Your task to perform on an android device: Open Google Maps and go to "Timeline" Image 0: 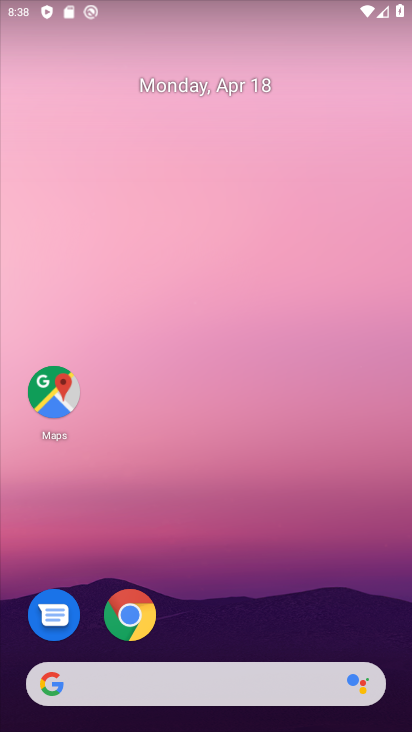
Step 0: drag from (361, 558) to (338, 173)
Your task to perform on an android device: Open Google Maps and go to "Timeline" Image 1: 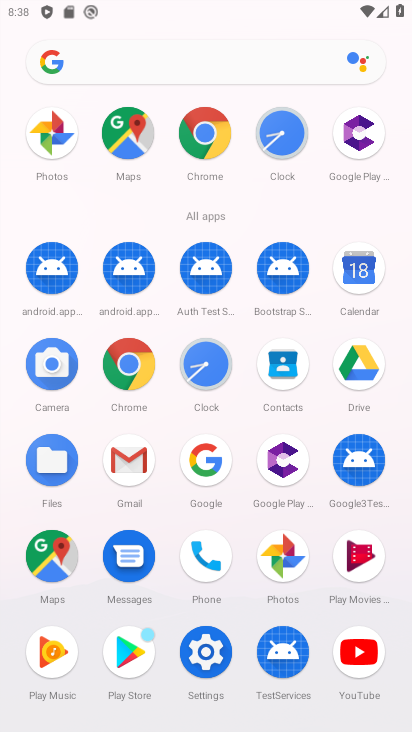
Step 1: click (49, 553)
Your task to perform on an android device: Open Google Maps and go to "Timeline" Image 2: 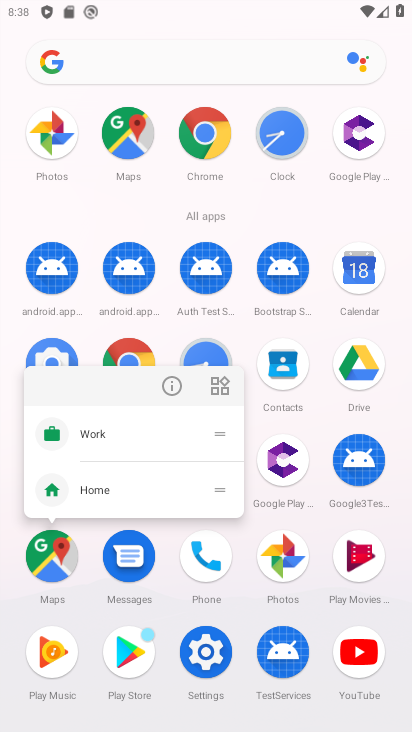
Step 2: click (42, 549)
Your task to perform on an android device: Open Google Maps and go to "Timeline" Image 3: 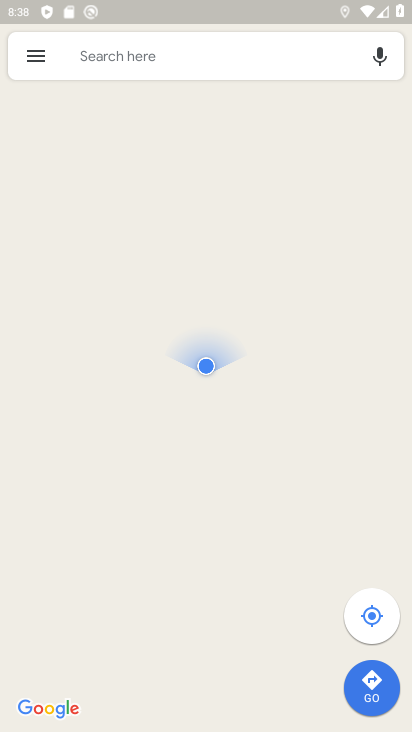
Step 3: click (32, 53)
Your task to perform on an android device: Open Google Maps and go to "Timeline" Image 4: 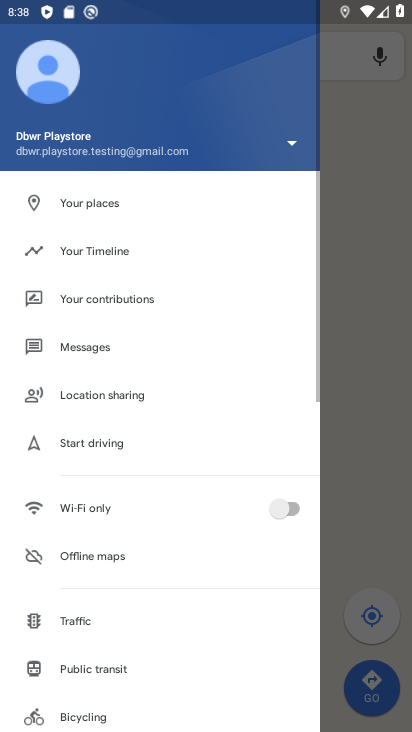
Step 4: click (85, 250)
Your task to perform on an android device: Open Google Maps and go to "Timeline" Image 5: 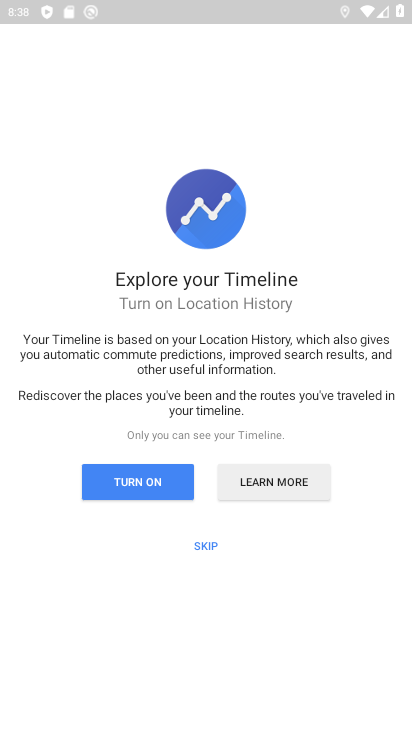
Step 5: click (206, 539)
Your task to perform on an android device: Open Google Maps and go to "Timeline" Image 6: 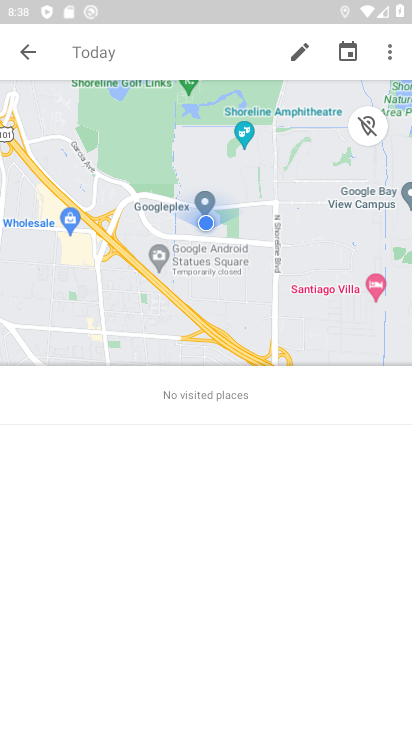
Step 6: task complete